Your task to perform on an android device: Open my contact list Image 0: 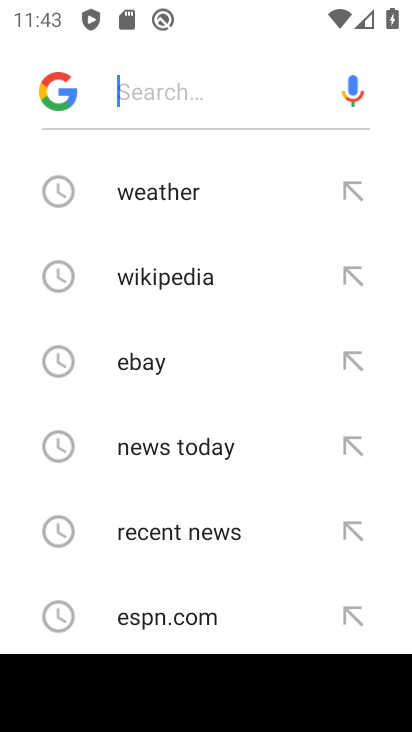
Step 0: press home button
Your task to perform on an android device: Open my contact list Image 1: 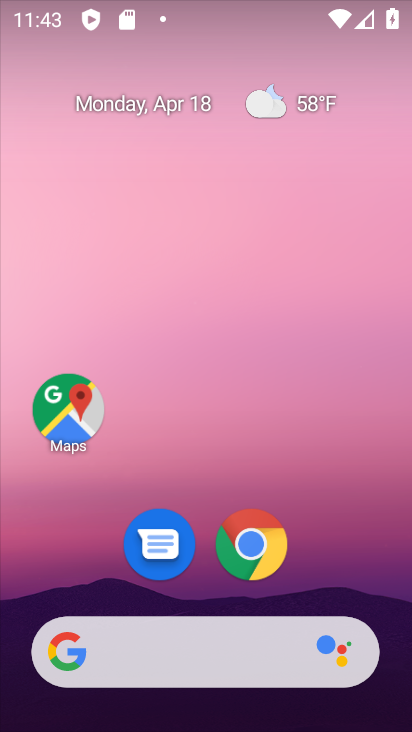
Step 1: drag from (209, 589) to (257, 5)
Your task to perform on an android device: Open my contact list Image 2: 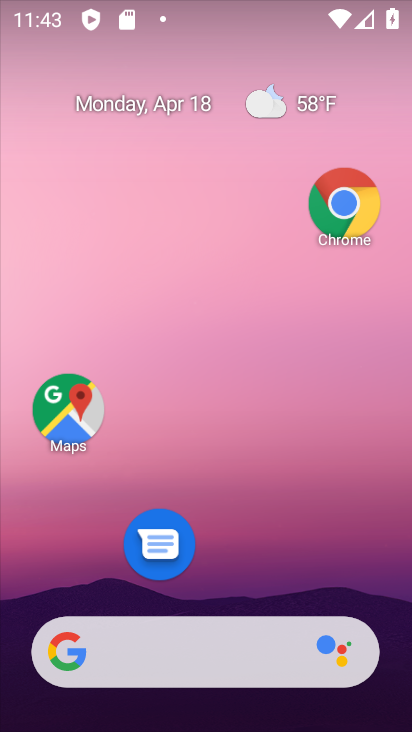
Step 2: drag from (271, 572) to (259, 124)
Your task to perform on an android device: Open my contact list Image 3: 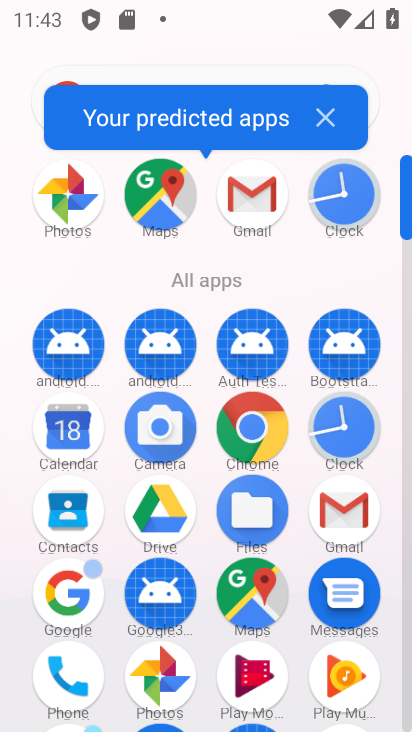
Step 3: click (73, 527)
Your task to perform on an android device: Open my contact list Image 4: 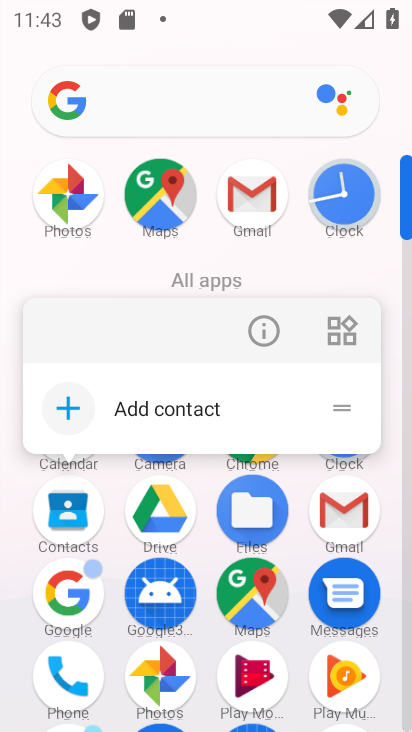
Step 4: click (69, 498)
Your task to perform on an android device: Open my contact list Image 5: 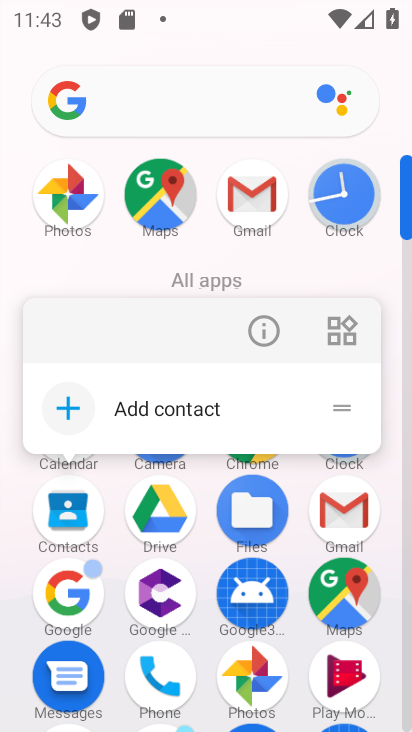
Step 5: click (52, 521)
Your task to perform on an android device: Open my contact list Image 6: 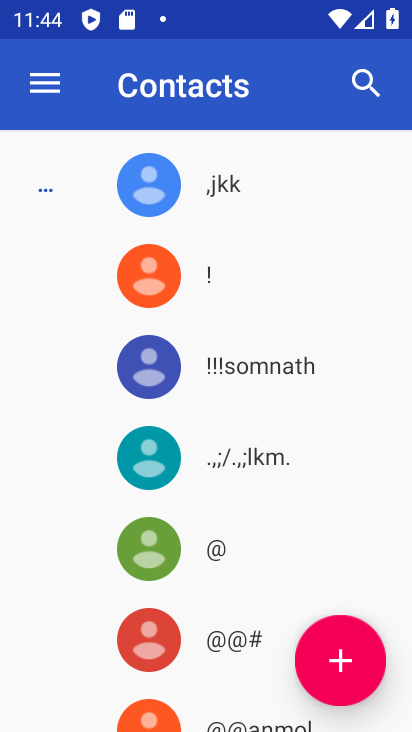
Step 6: task complete